Your task to perform on an android device: Find coffee shops on Maps Image 0: 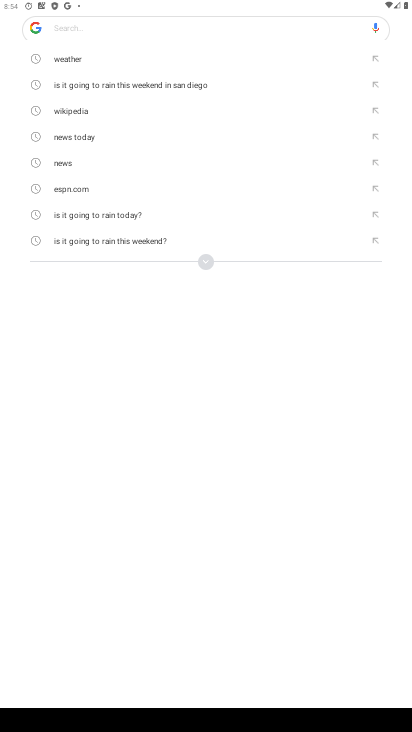
Step 0: press home button
Your task to perform on an android device: Find coffee shops on Maps Image 1: 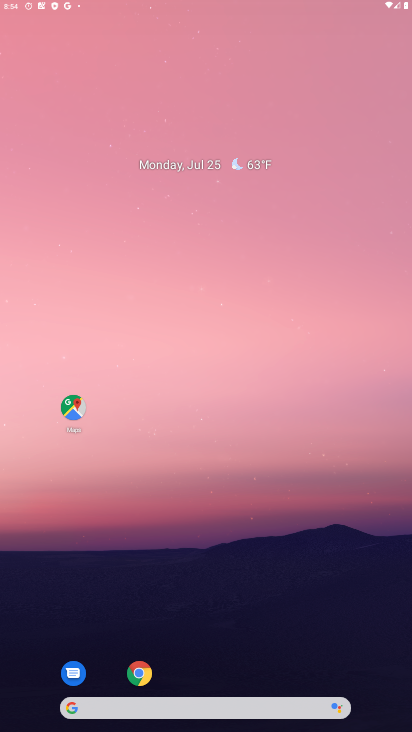
Step 1: drag from (184, 496) to (247, 3)
Your task to perform on an android device: Find coffee shops on Maps Image 2: 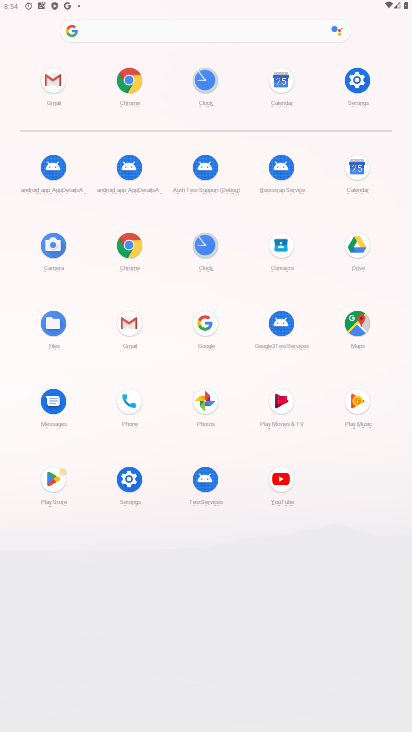
Step 2: click (354, 324)
Your task to perform on an android device: Find coffee shops on Maps Image 3: 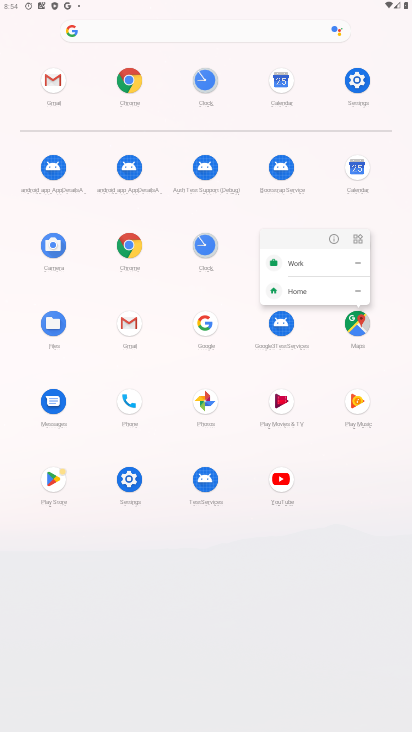
Step 3: click (338, 236)
Your task to perform on an android device: Find coffee shops on Maps Image 4: 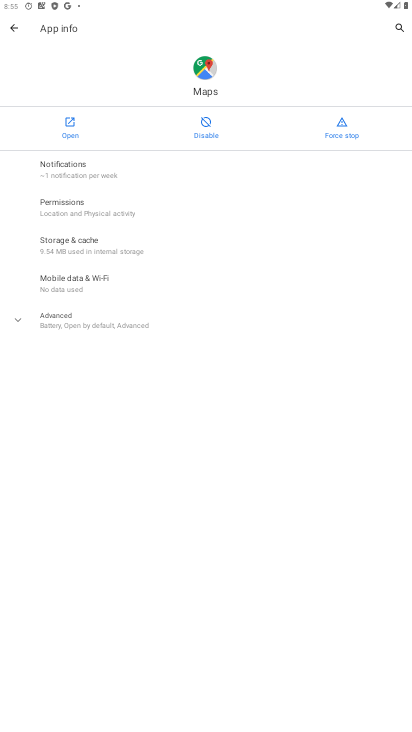
Step 4: click (65, 129)
Your task to perform on an android device: Find coffee shops on Maps Image 5: 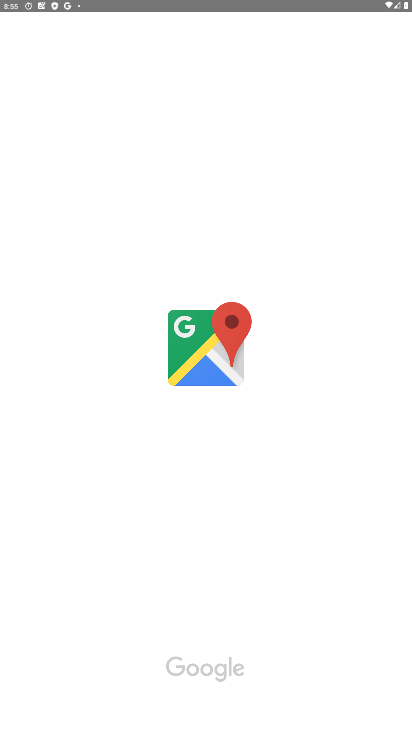
Step 5: drag from (229, 525) to (258, 370)
Your task to perform on an android device: Find coffee shops on Maps Image 6: 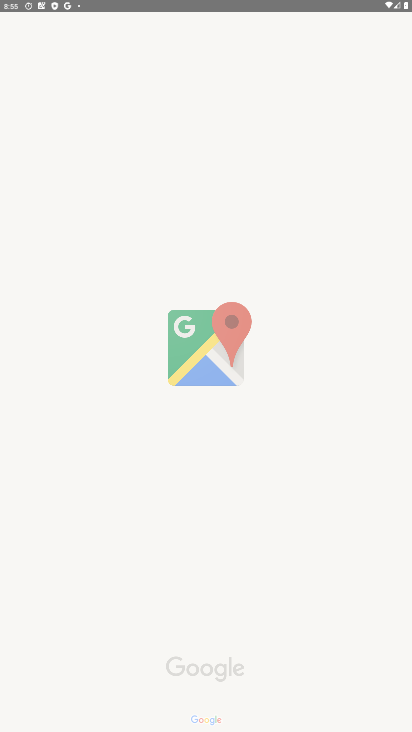
Step 6: drag from (171, 627) to (180, 262)
Your task to perform on an android device: Find coffee shops on Maps Image 7: 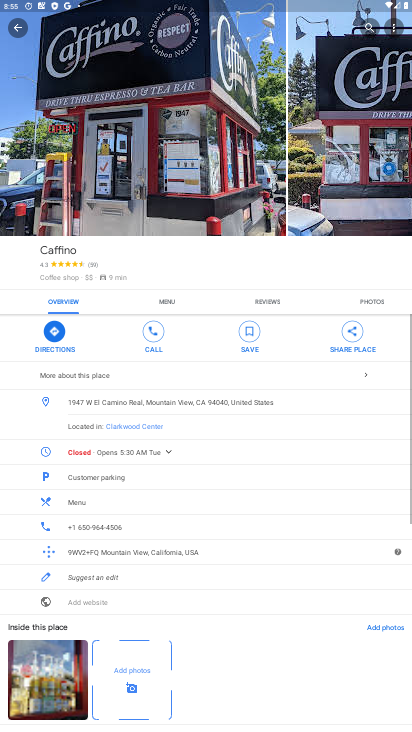
Step 7: click (19, 30)
Your task to perform on an android device: Find coffee shops on Maps Image 8: 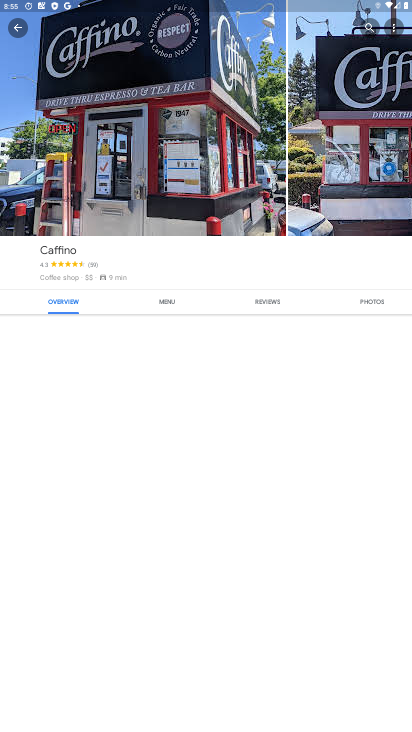
Step 8: click (25, 32)
Your task to perform on an android device: Find coffee shops on Maps Image 9: 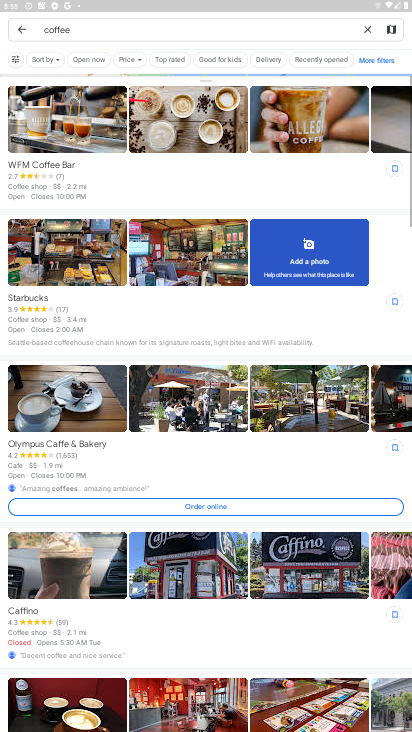
Step 9: click (22, 29)
Your task to perform on an android device: Find coffee shops on Maps Image 10: 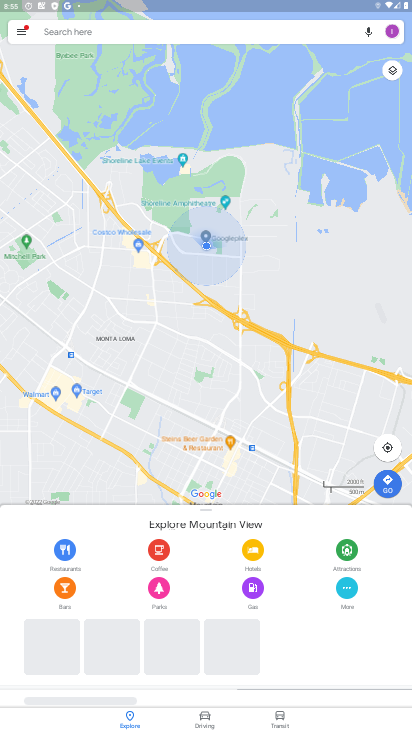
Step 10: click (114, 35)
Your task to perform on an android device: Find coffee shops on Maps Image 11: 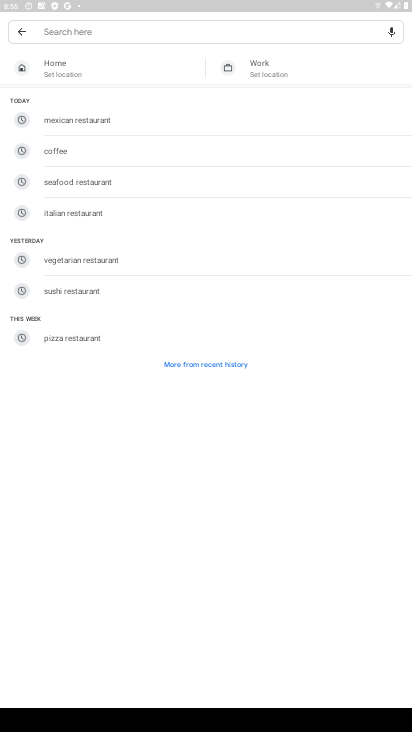
Step 11: click (88, 149)
Your task to perform on an android device: Find coffee shops on Maps Image 12: 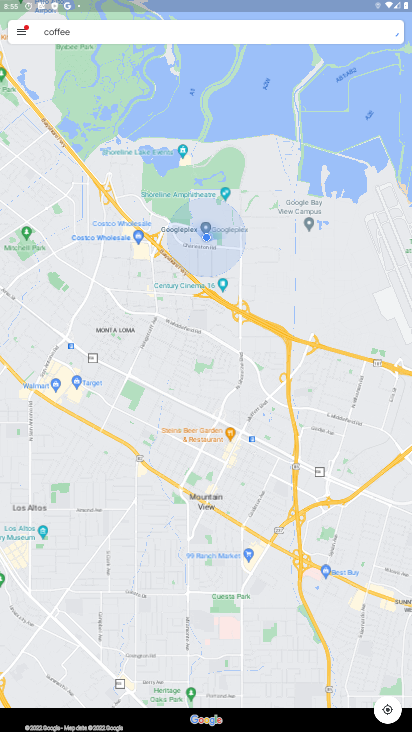
Step 12: task complete